Your task to perform on an android device: What's on my calendar today? Image 0: 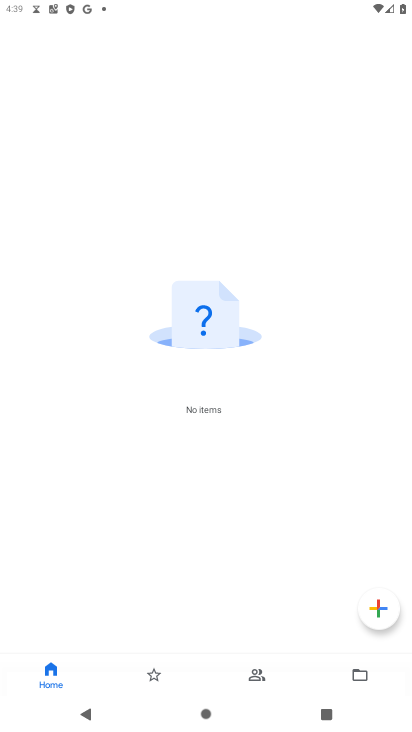
Step 0: press home button
Your task to perform on an android device: What's on my calendar today? Image 1: 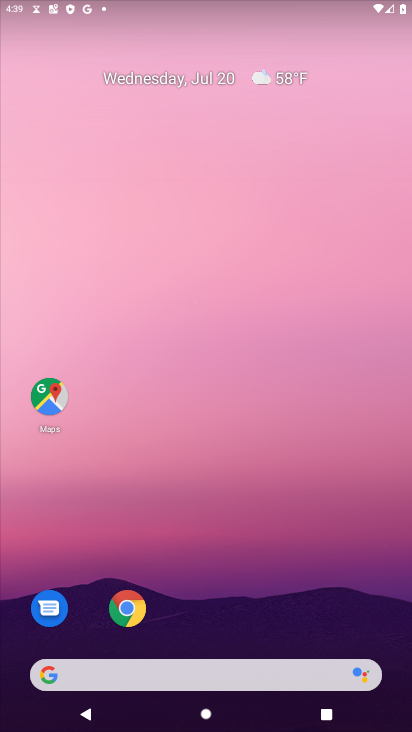
Step 1: drag from (210, 628) to (168, 82)
Your task to perform on an android device: What's on my calendar today? Image 2: 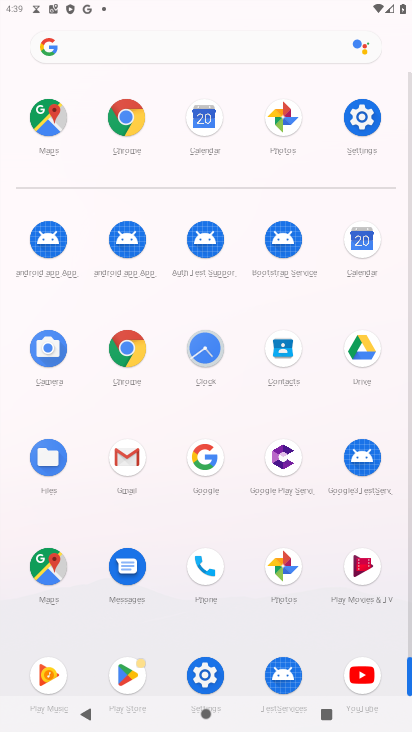
Step 2: click (346, 248)
Your task to perform on an android device: What's on my calendar today? Image 3: 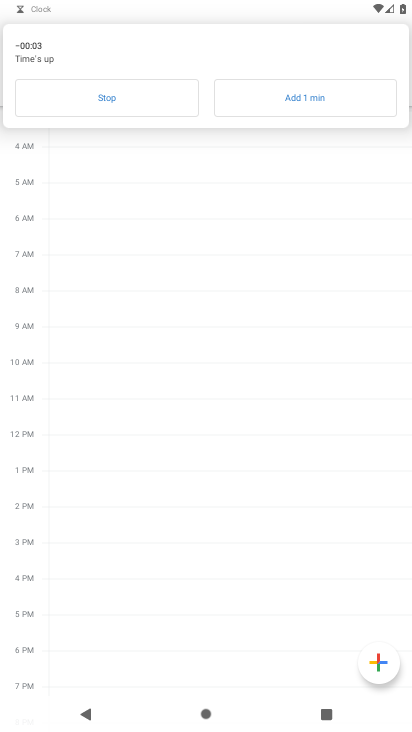
Step 3: click (95, 90)
Your task to perform on an android device: What's on my calendar today? Image 4: 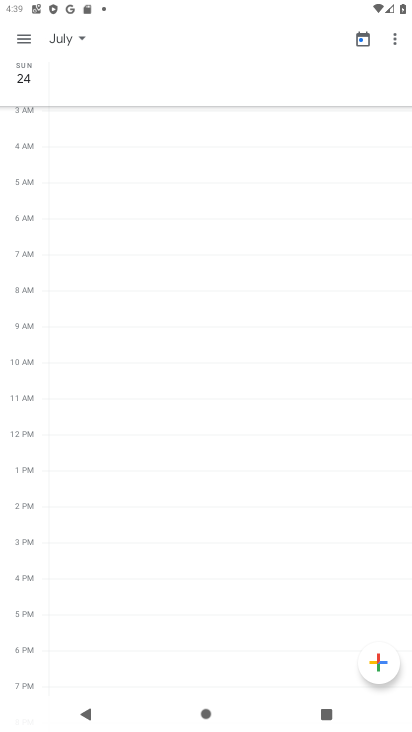
Step 4: click (23, 36)
Your task to perform on an android device: What's on my calendar today? Image 5: 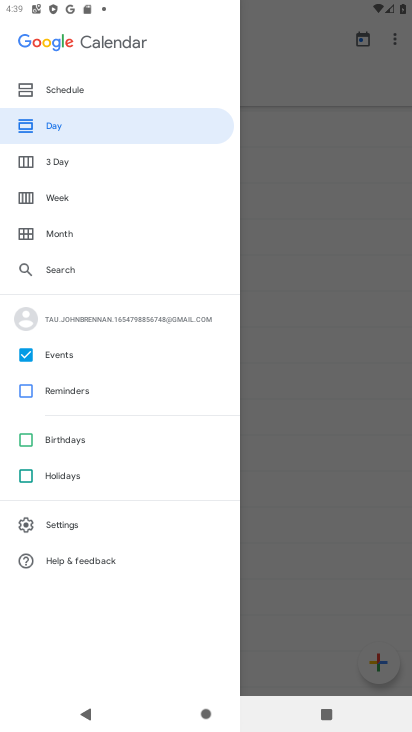
Step 5: click (30, 390)
Your task to perform on an android device: What's on my calendar today? Image 6: 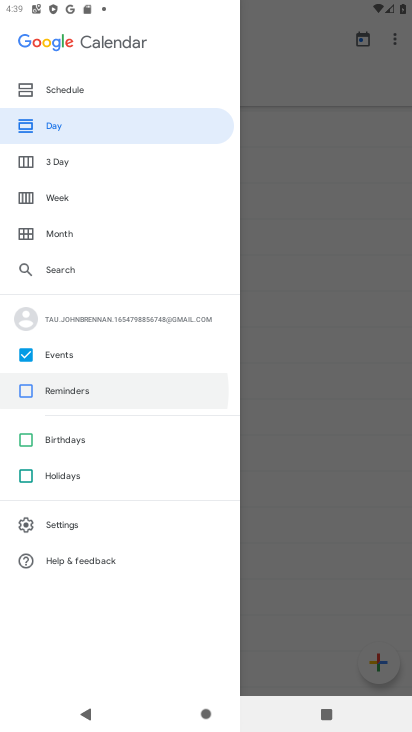
Step 6: click (31, 449)
Your task to perform on an android device: What's on my calendar today? Image 7: 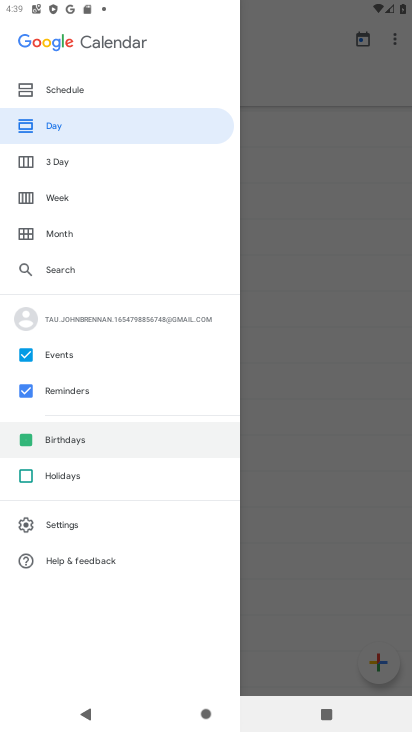
Step 7: click (35, 481)
Your task to perform on an android device: What's on my calendar today? Image 8: 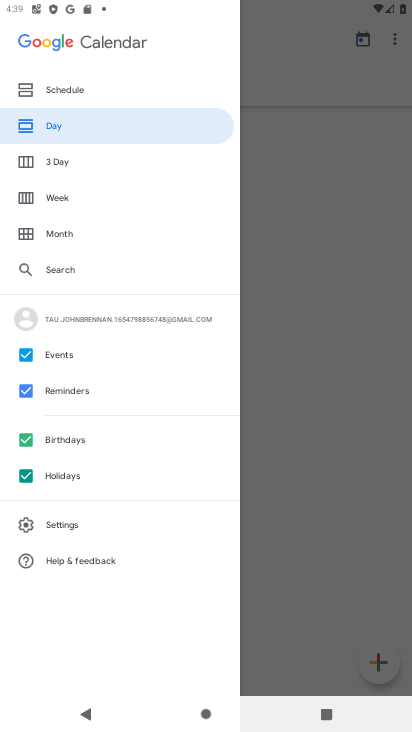
Step 8: click (95, 124)
Your task to perform on an android device: What's on my calendar today? Image 9: 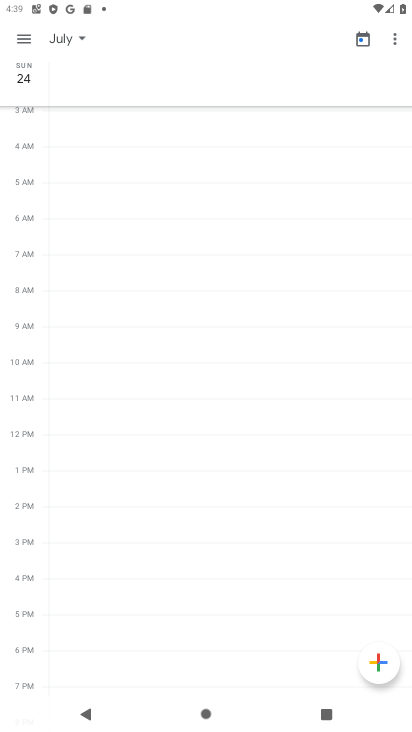
Step 9: task complete